Your task to perform on an android device: Go to notification settings Image 0: 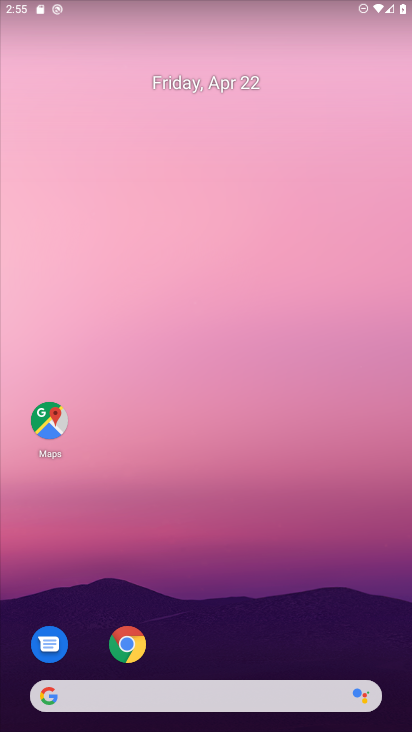
Step 0: drag from (307, 638) to (268, 166)
Your task to perform on an android device: Go to notification settings Image 1: 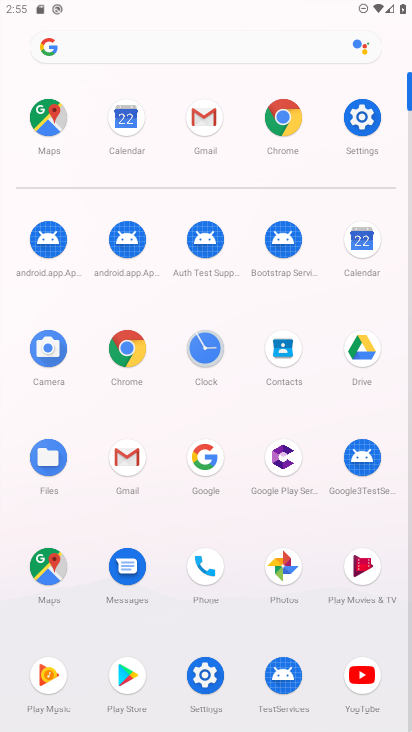
Step 1: click (359, 118)
Your task to perform on an android device: Go to notification settings Image 2: 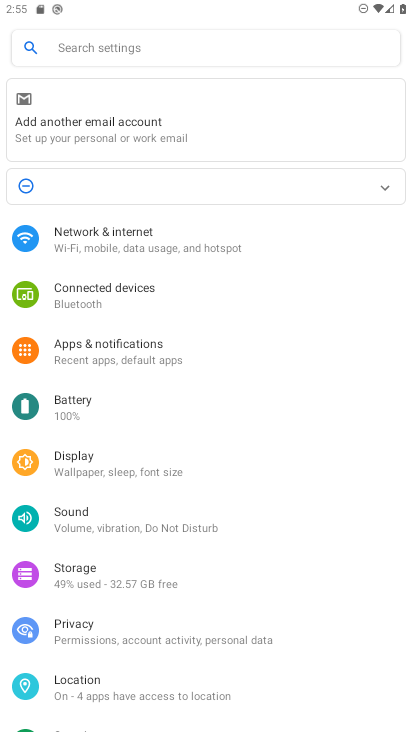
Step 2: click (141, 363)
Your task to perform on an android device: Go to notification settings Image 3: 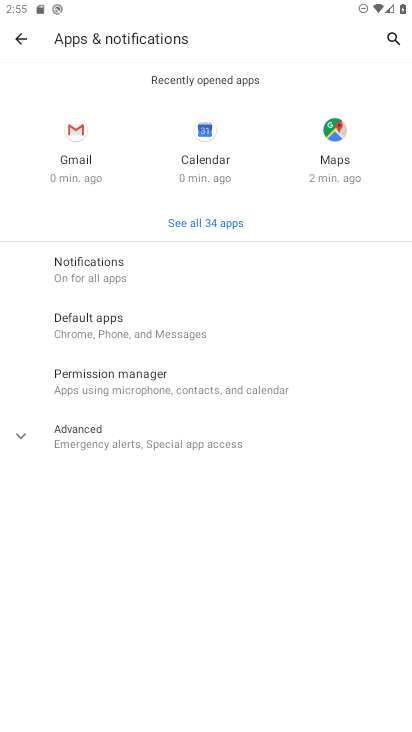
Step 3: click (161, 282)
Your task to perform on an android device: Go to notification settings Image 4: 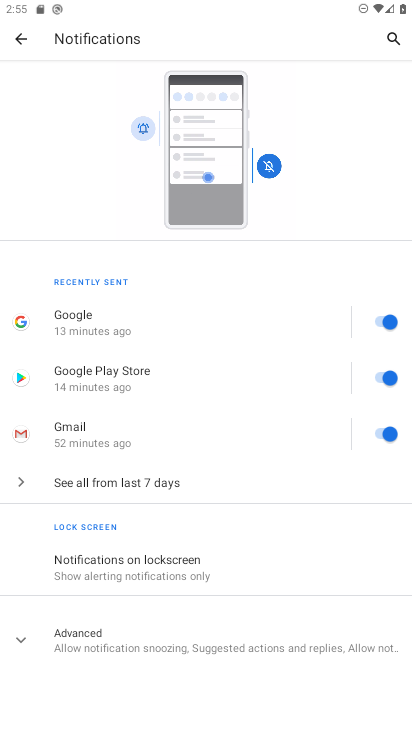
Step 4: task complete